Your task to perform on an android device: uninstall "Google Chat" Image 0: 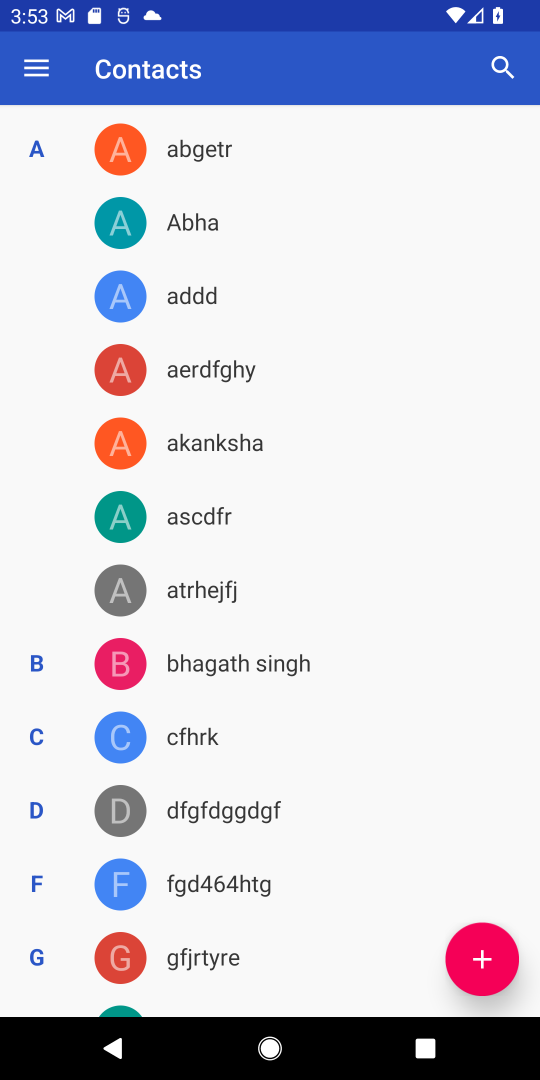
Step 0: press home button
Your task to perform on an android device: uninstall "Google Chat" Image 1: 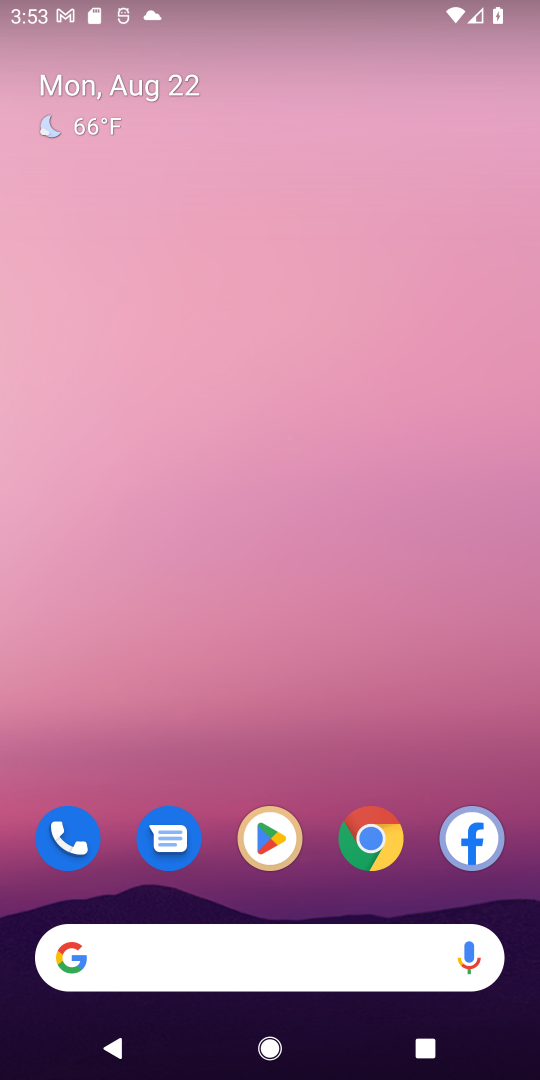
Step 1: click (268, 832)
Your task to perform on an android device: uninstall "Google Chat" Image 2: 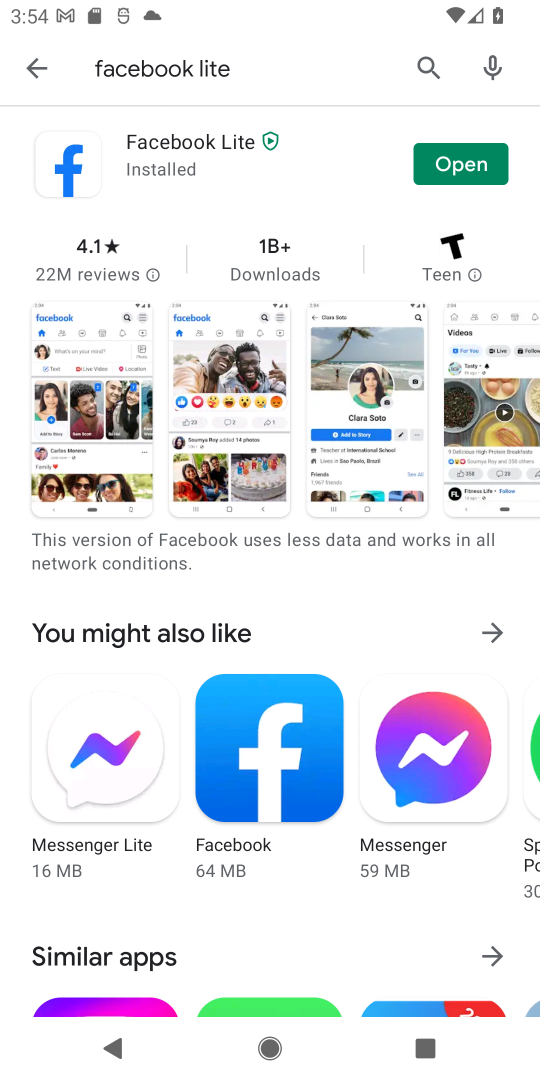
Step 2: click (432, 77)
Your task to perform on an android device: uninstall "Google Chat" Image 3: 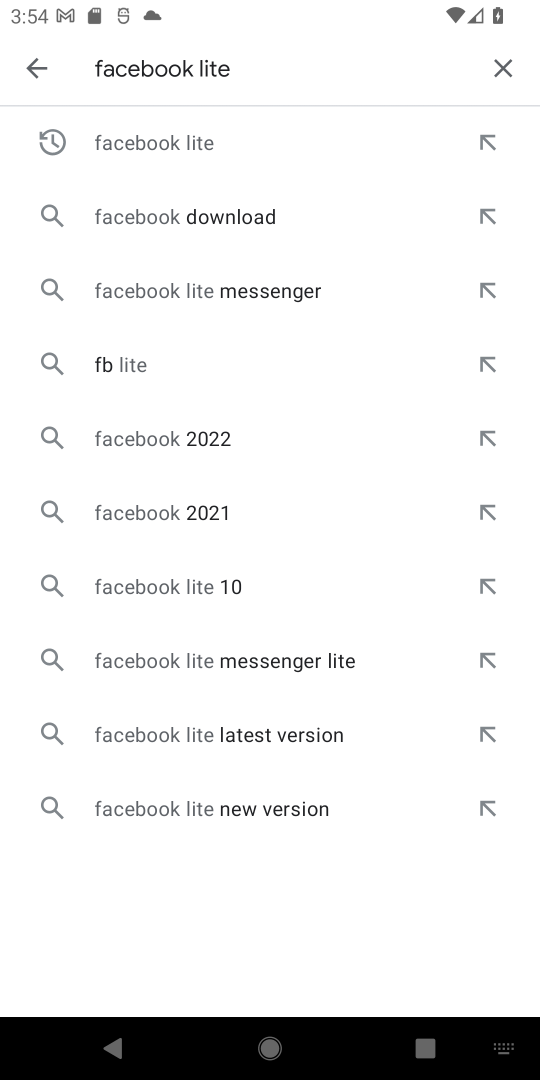
Step 3: click (520, 64)
Your task to perform on an android device: uninstall "Google Chat" Image 4: 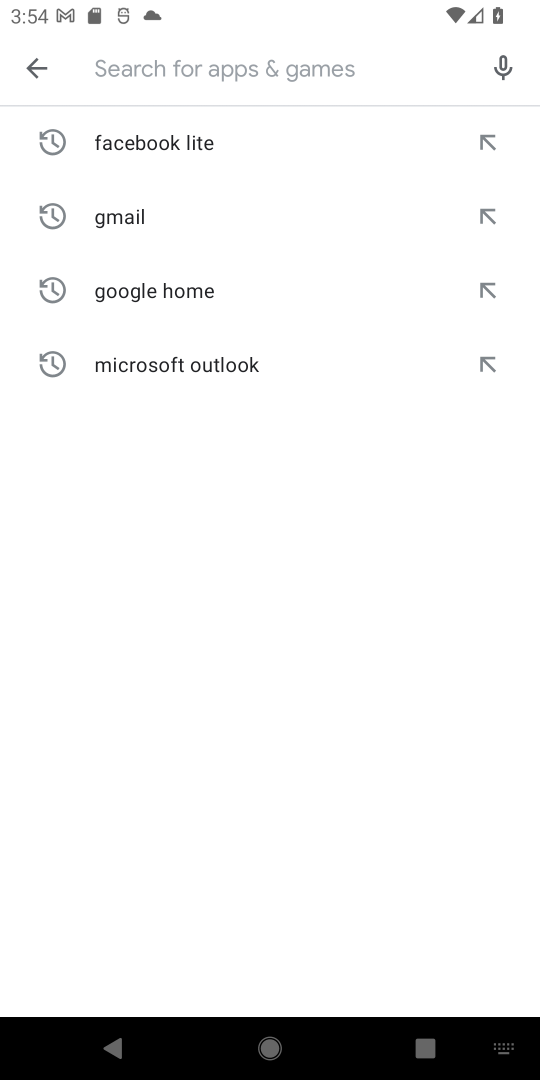
Step 4: click (201, 55)
Your task to perform on an android device: uninstall "Google Chat" Image 5: 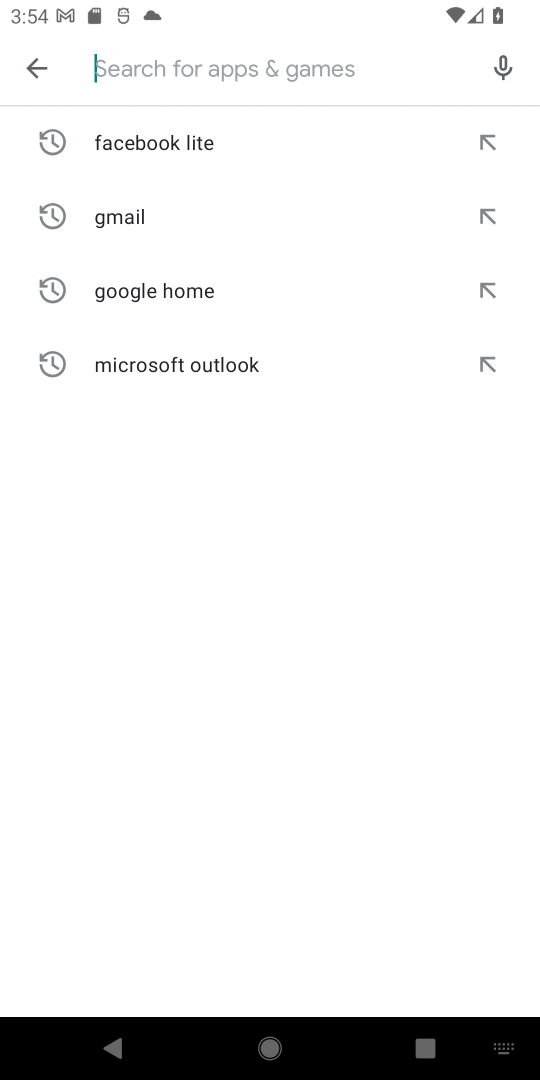
Step 5: type "Google Chat"
Your task to perform on an android device: uninstall "Google Chat" Image 6: 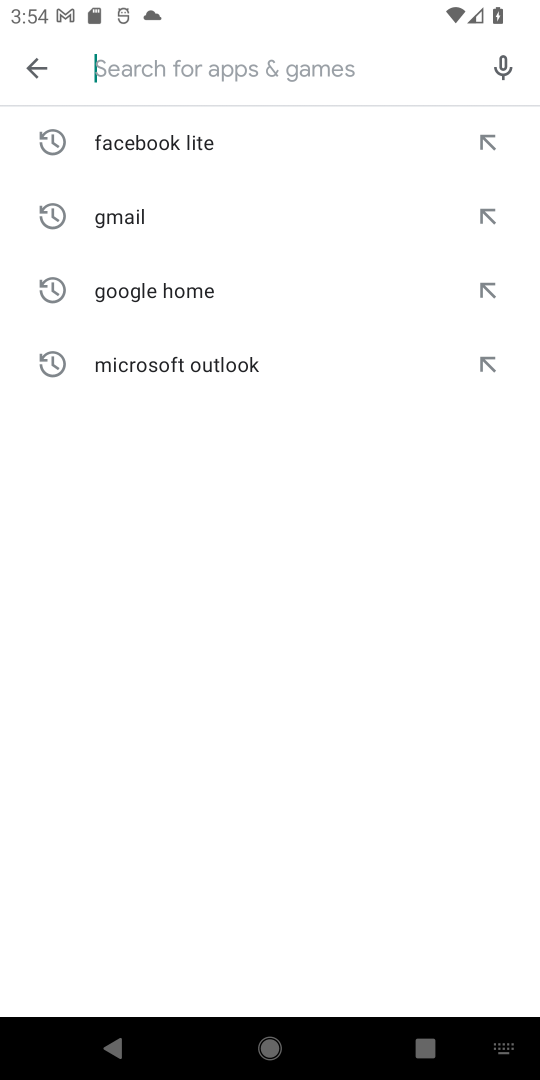
Step 6: click (379, 602)
Your task to perform on an android device: uninstall "Google Chat" Image 7: 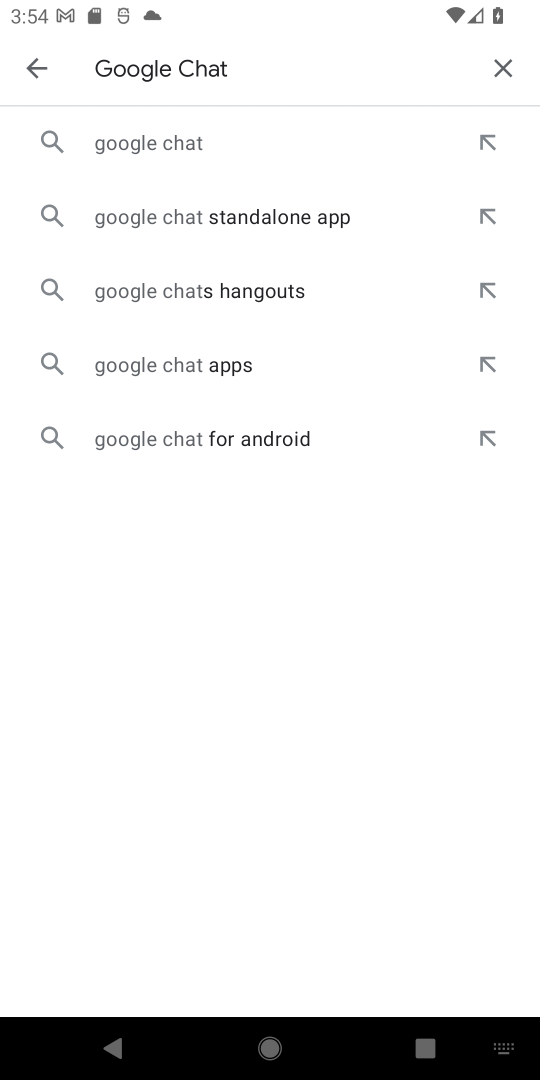
Step 7: click (182, 136)
Your task to perform on an android device: uninstall "Google Chat" Image 8: 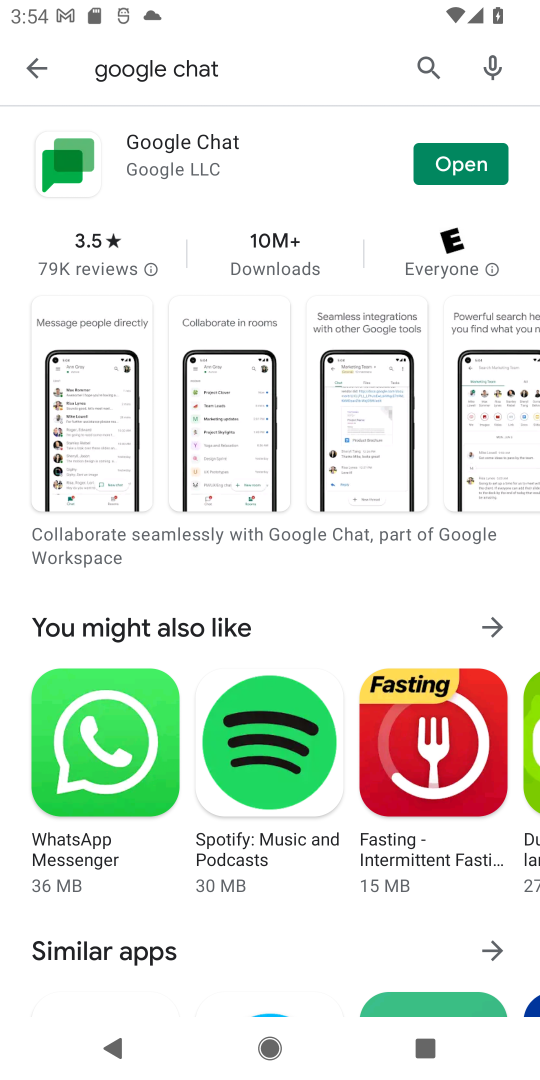
Step 8: click (211, 141)
Your task to perform on an android device: uninstall "Google Chat" Image 9: 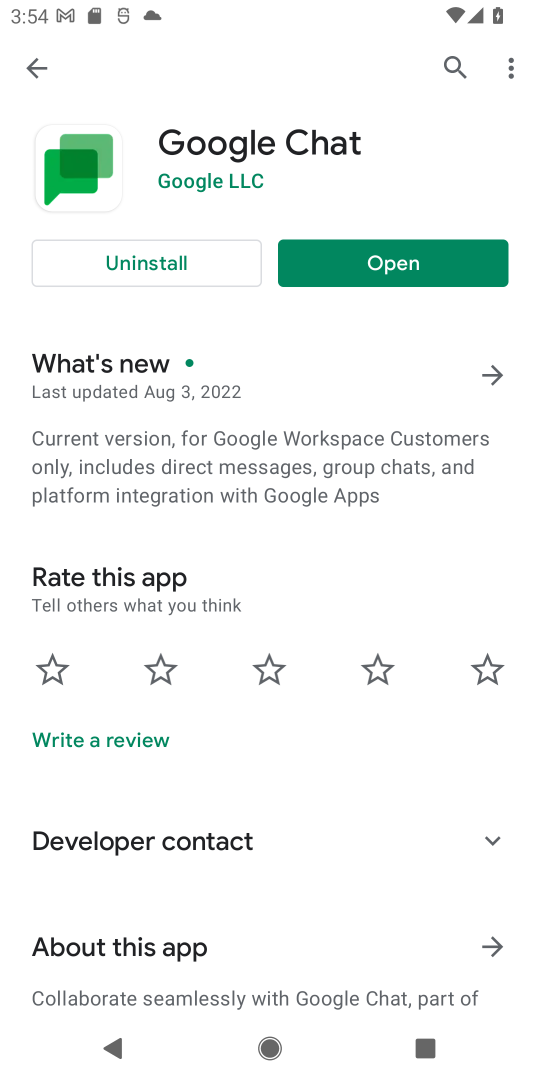
Step 9: click (164, 258)
Your task to perform on an android device: uninstall "Google Chat" Image 10: 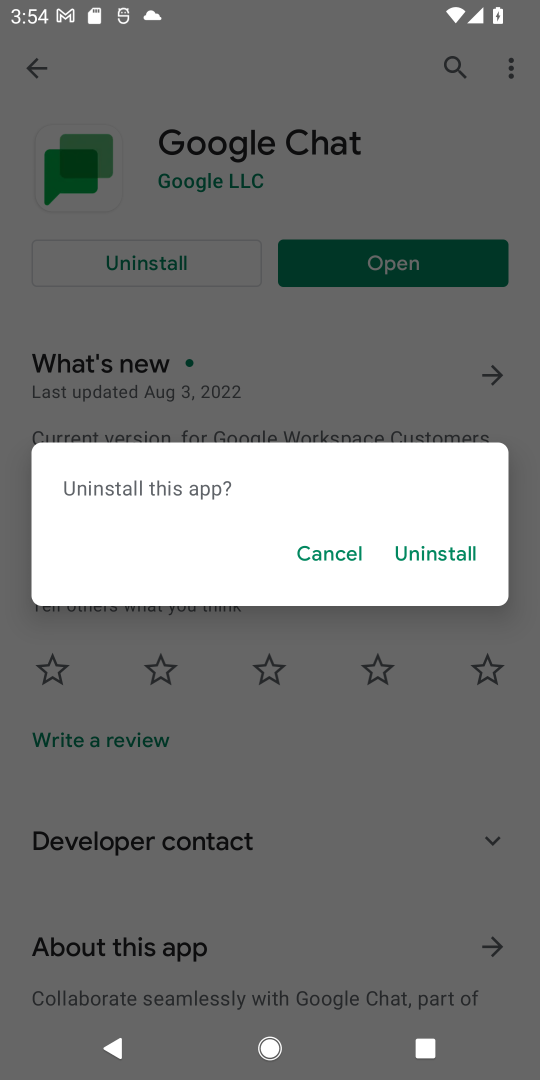
Step 10: click (454, 543)
Your task to perform on an android device: uninstall "Google Chat" Image 11: 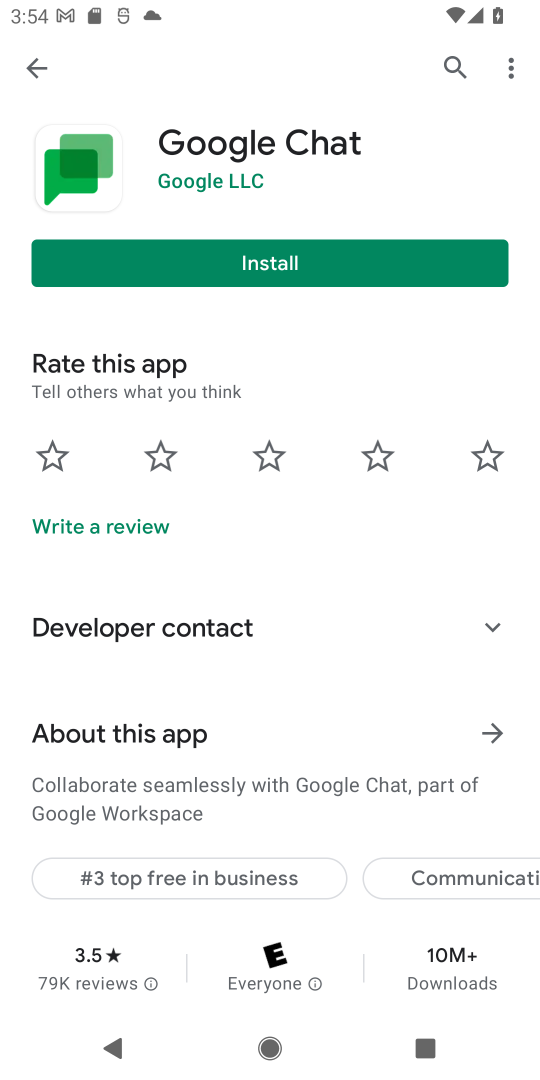
Step 11: task complete